Your task to perform on an android device: change text size in settings app Image 0: 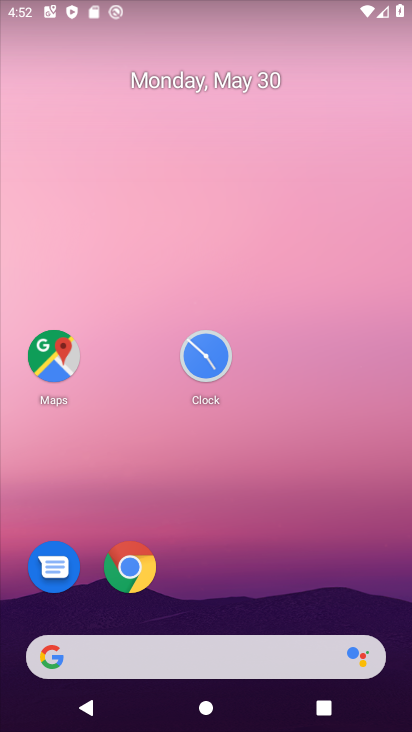
Step 0: drag from (277, 715) to (173, 150)
Your task to perform on an android device: change text size in settings app Image 1: 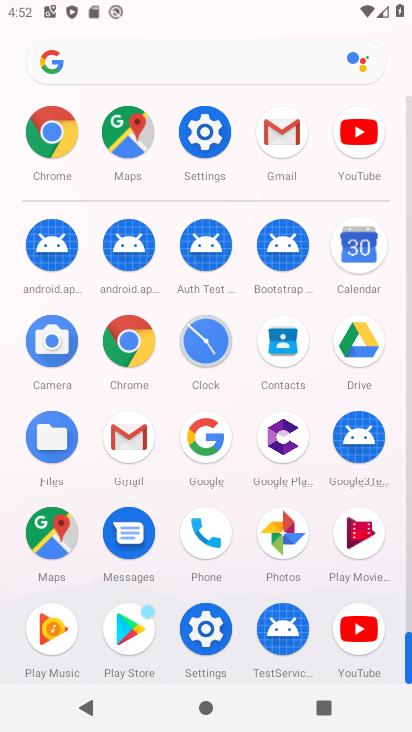
Step 1: click (207, 143)
Your task to perform on an android device: change text size in settings app Image 2: 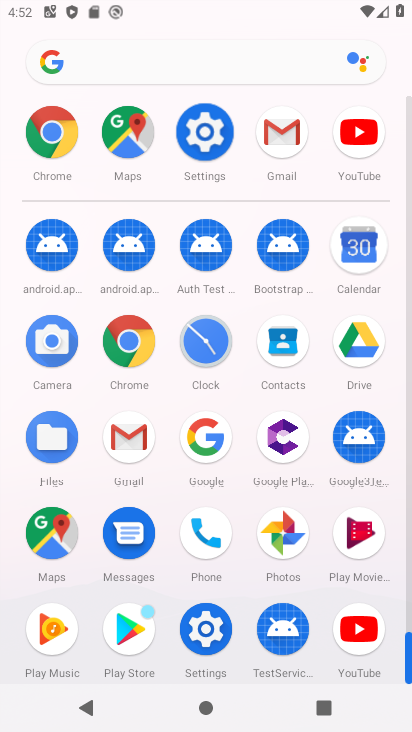
Step 2: click (205, 145)
Your task to perform on an android device: change text size in settings app Image 3: 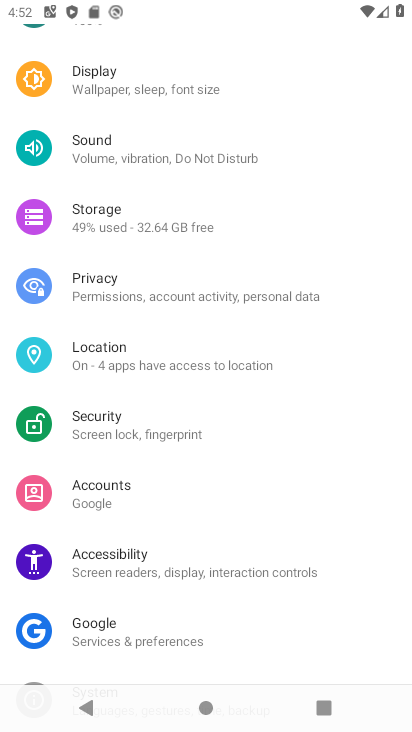
Step 3: click (109, 74)
Your task to perform on an android device: change text size in settings app Image 4: 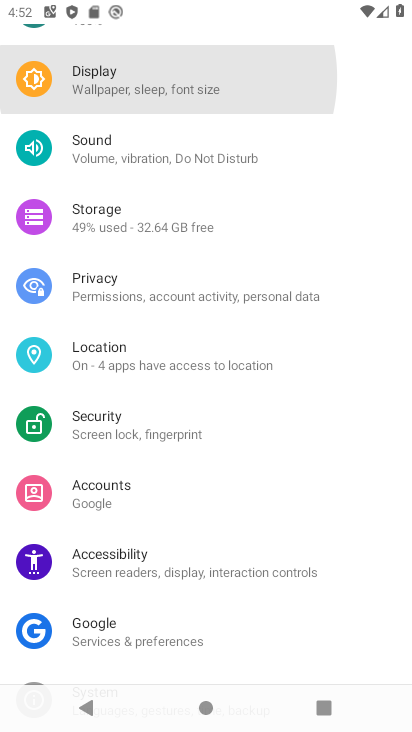
Step 4: click (107, 73)
Your task to perform on an android device: change text size in settings app Image 5: 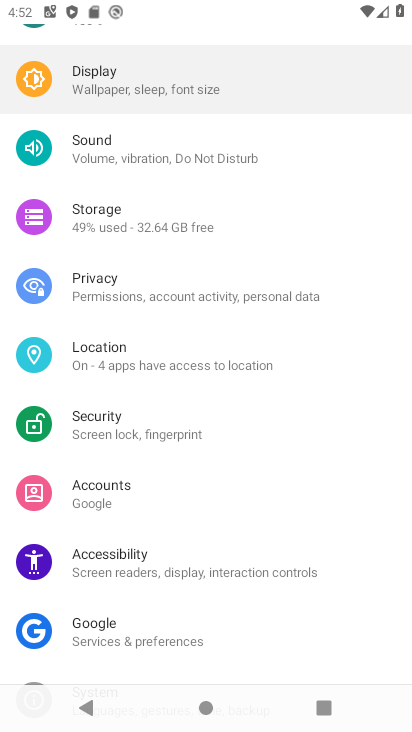
Step 5: click (105, 74)
Your task to perform on an android device: change text size in settings app Image 6: 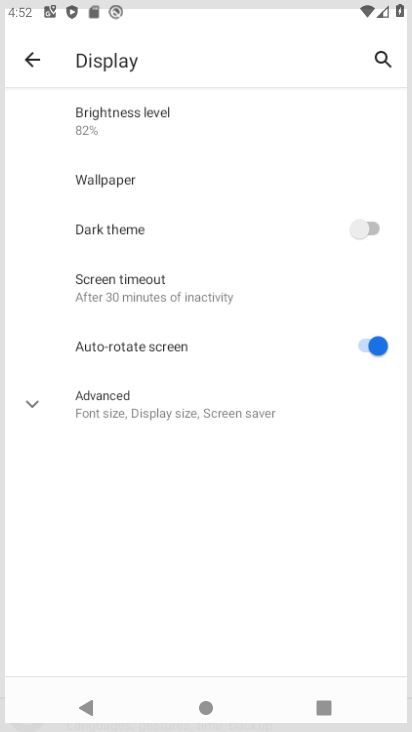
Step 6: click (105, 75)
Your task to perform on an android device: change text size in settings app Image 7: 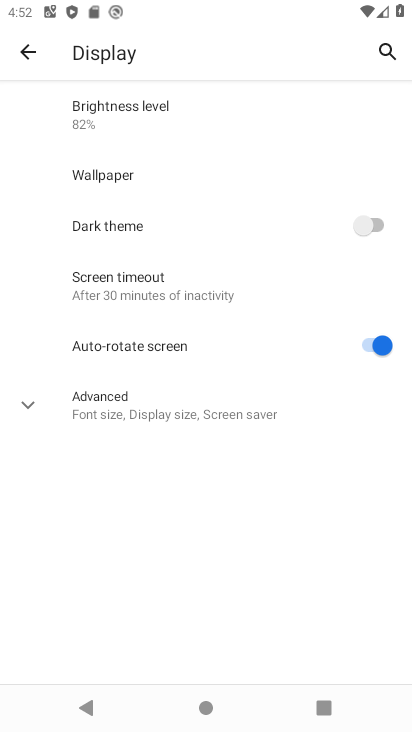
Step 7: click (105, 76)
Your task to perform on an android device: change text size in settings app Image 8: 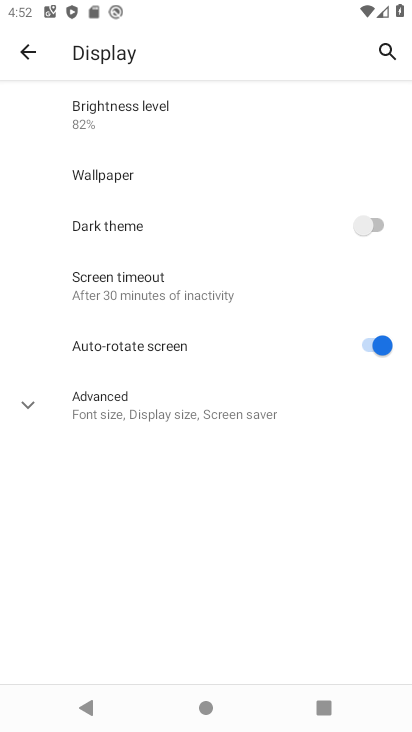
Step 8: click (103, 78)
Your task to perform on an android device: change text size in settings app Image 9: 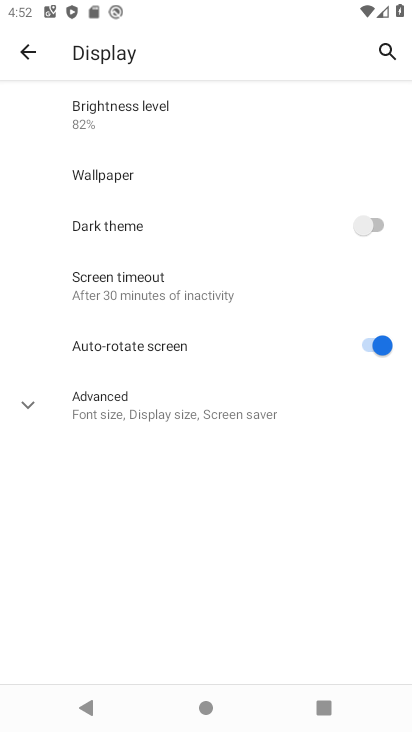
Step 9: click (32, 49)
Your task to perform on an android device: change text size in settings app Image 10: 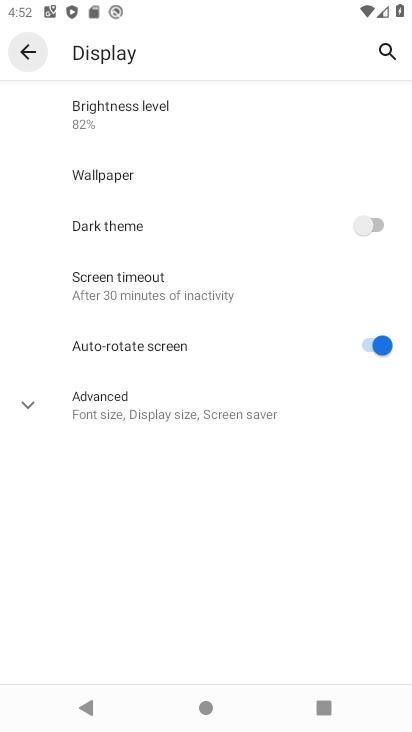
Step 10: click (26, 52)
Your task to perform on an android device: change text size in settings app Image 11: 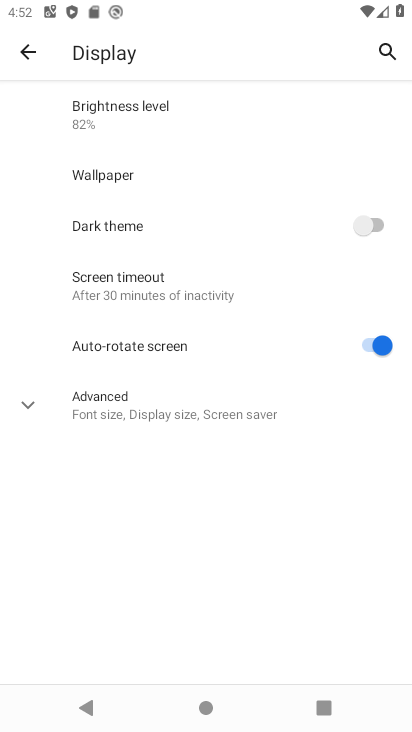
Step 11: click (114, 396)
Your task to perform on an android device: change text size in settings app Image 12: 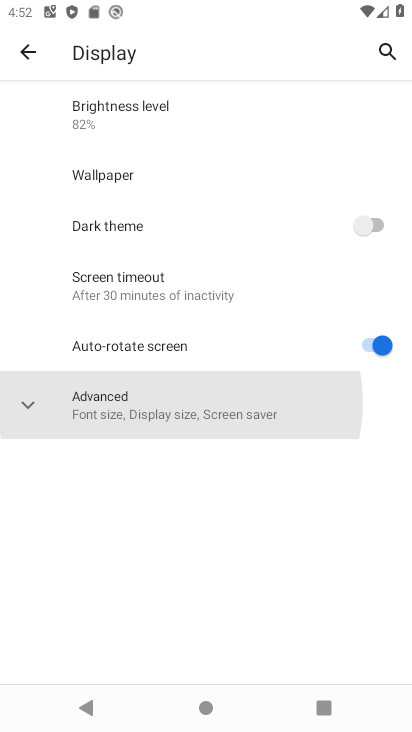
Step 12: click (114, 400)
Your task to perform on an android device: change text size in settings app Image 13: 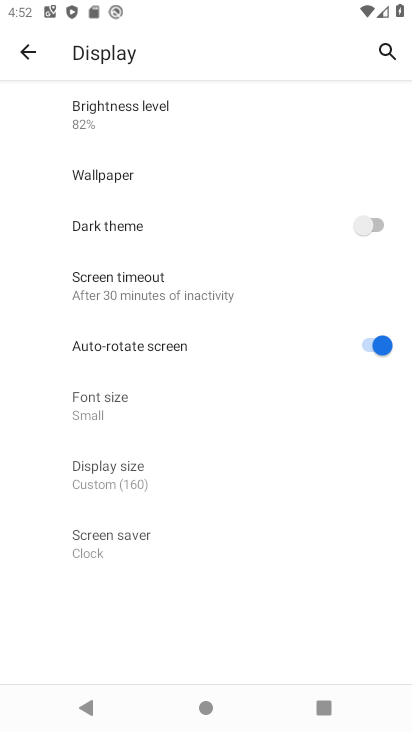
Step 13: click (118, 421)
Your task to perform on an android device: change text size in settings app Image 14: 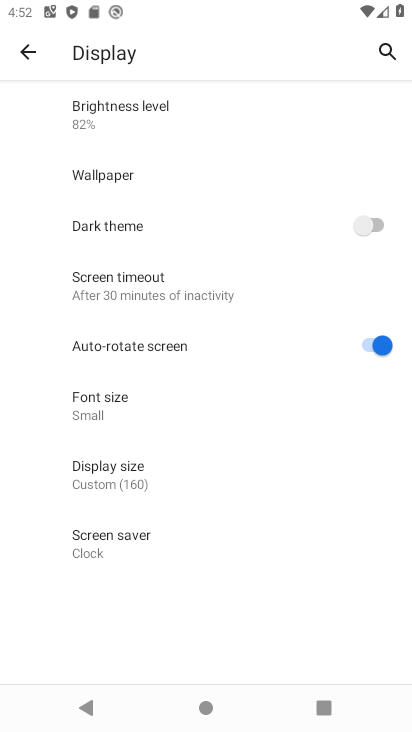
Step 14: click (118, 422)
Your task to perform on an android device: change text size in settings app Image 15: 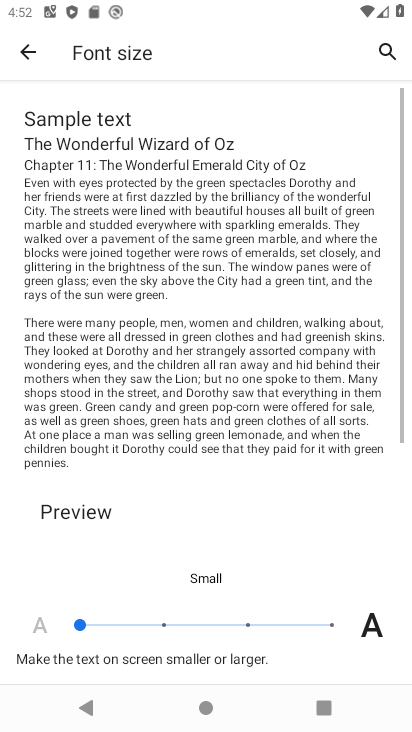
Step 15: click (28, 47)
Your task to perform on an android device: change text size in settings app Image 16: 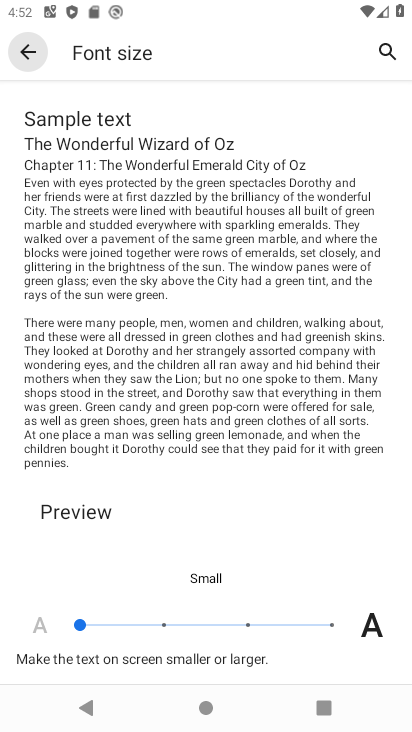
Step 16: click (26, 55)
Your task to perform on an android device: change text size in settings app Image 17: 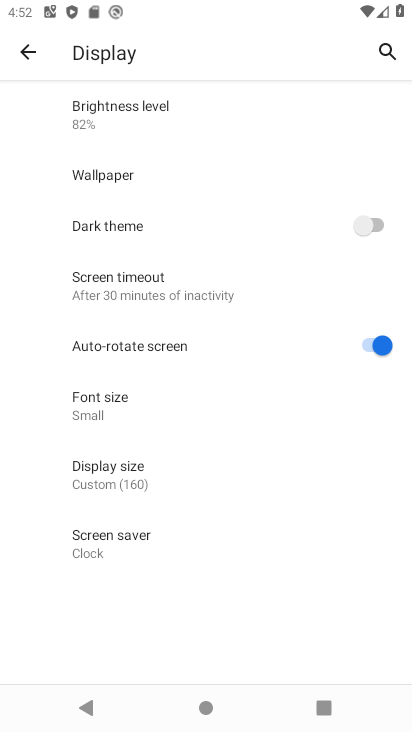
Step 17: click (92, 399)
Your task to perform on an android device: change text size in settings app Image 18: 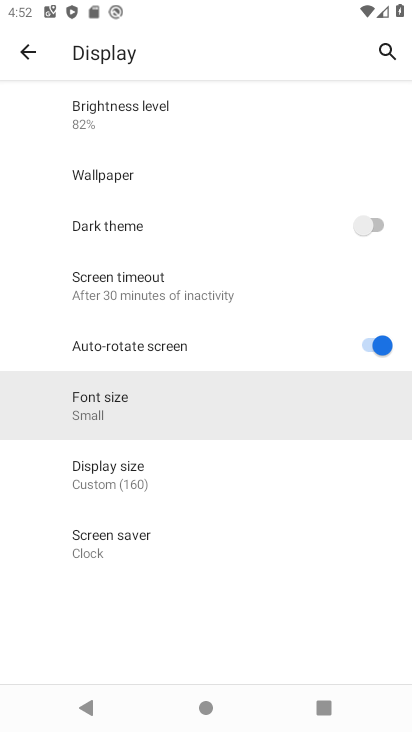
Step 18: click (92, 399)
Your task to perform on an android device: change text size in settings app Image 19: 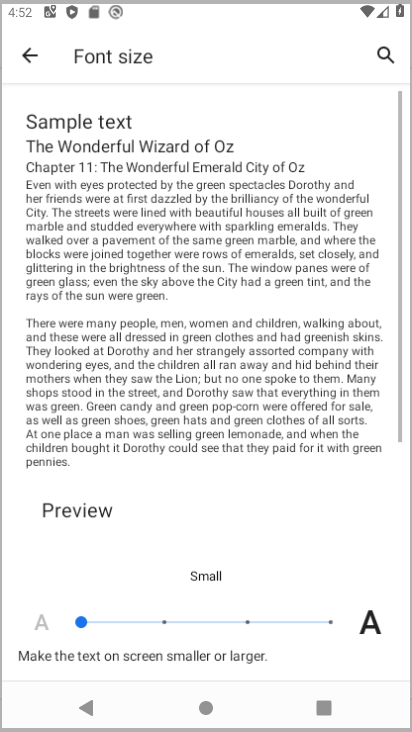
Step 19: click (83, 411)
Your task to perform on an android device: change text size in settings app Image 20: 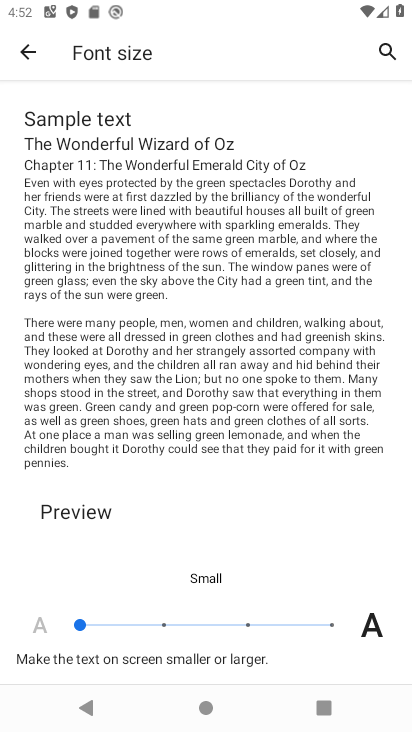
Step 20: click (161, 622)
Your task to perform on an android device: change text size in settings app Image 21: 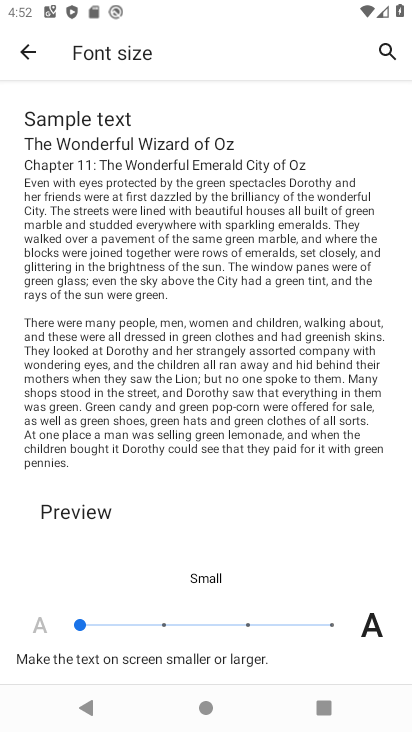
Step 21: click (161, 622)
Your task to perform on an android device: change text size in settings app Image 22: 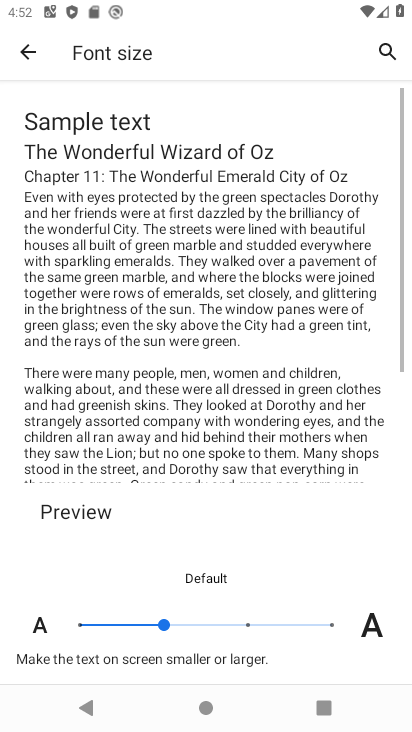
Step 22: click (161, 621)
Your task to perform on an android device: change text size in settings app Image 23: 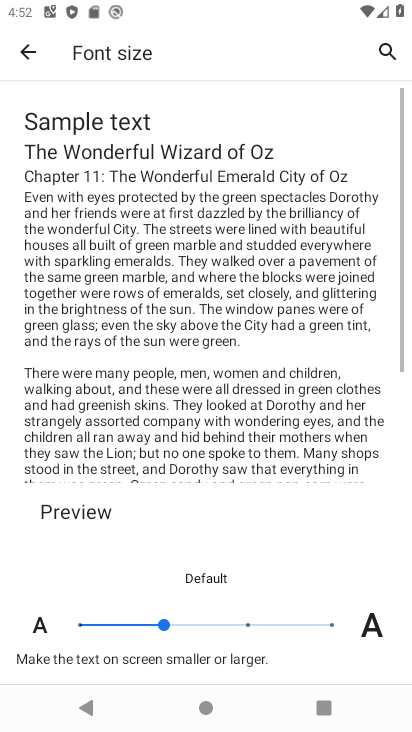
Step 23: click (162, 619)
Your task to perform on an android device: change text size in settings app Image 24: 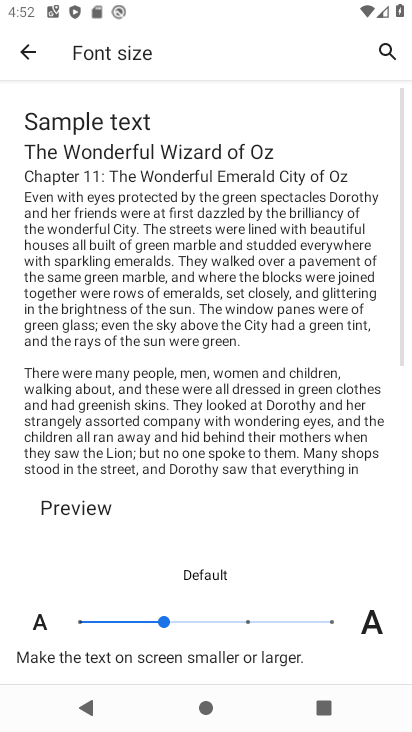
Step 24: task complete